Your task to perform on an android device: open a new tab in the chrome app Image 0: 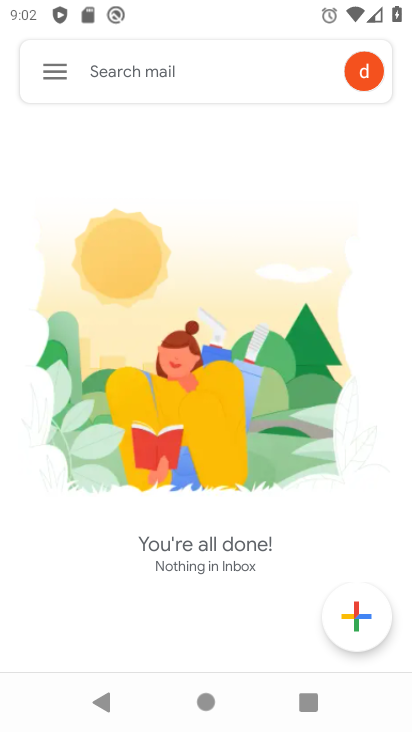
Step 0: press home button
Your task to perform on an android device: open a new tab in the chrome app Image 1: 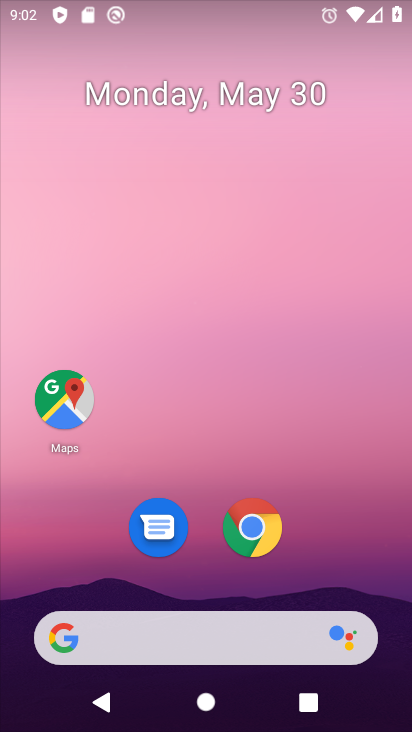
Step 1: drag from (308, 626) to (391, 61)
Your task to perform on an android device: open a new tab in the chrome app Image 2: 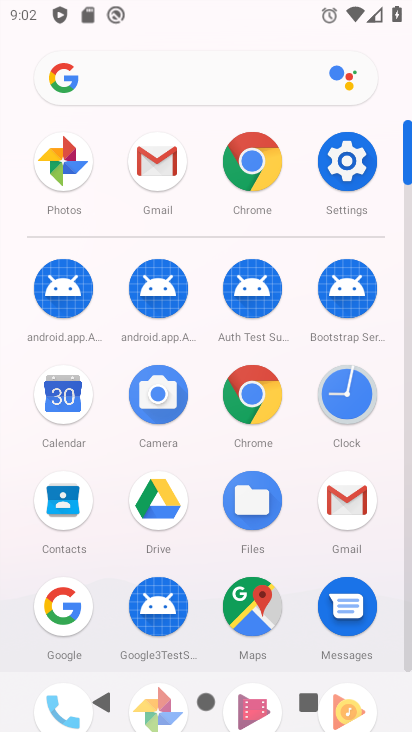
Step 2: click (249, 380)
Your task to perform on an android device: open a new tab in the chrome app Image 3: 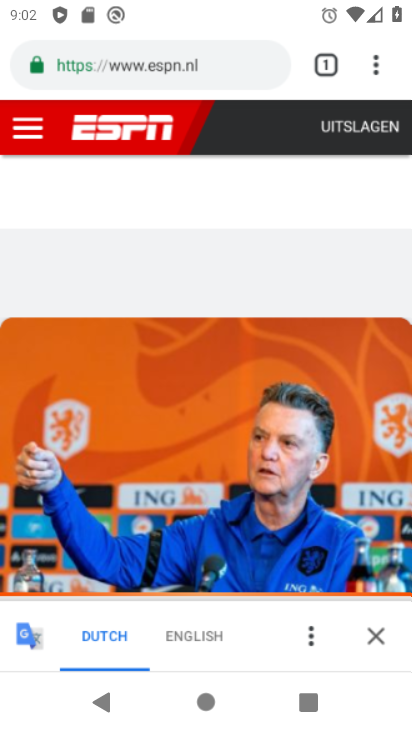
Step 3: drag from (372, 68) to (257, 121)
Your task to perform on an android device: open a new tab in the chrome app Image 4: 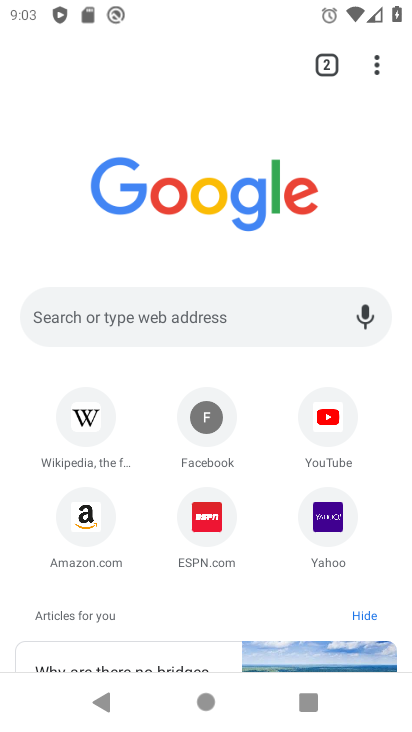
Step 4: press home button
Your task to perform on an android device: open a new tab in the chrome app Image 5: 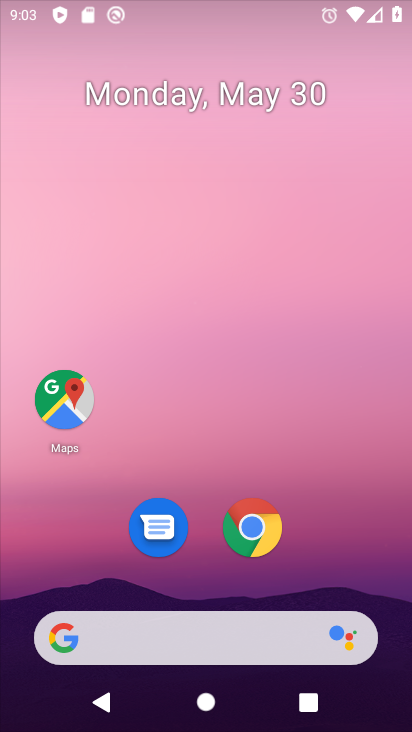
Step 5: drag from (280, 576) to (349, 15)
Your task to perform on an android device: open a new tab in the chrome app Image 6: 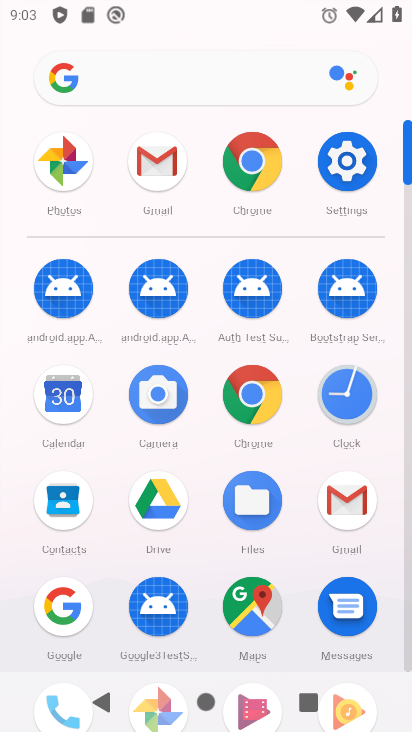
Step 6: click (246, 395)
Your task to perform on an android device: open a new tab in the chrome app Image 7: 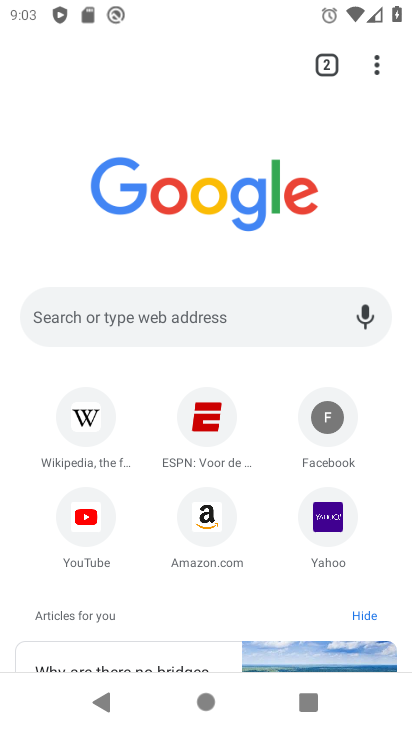
Step 7: task complete